Your task to perform on an android device: Go to Google Image 0: 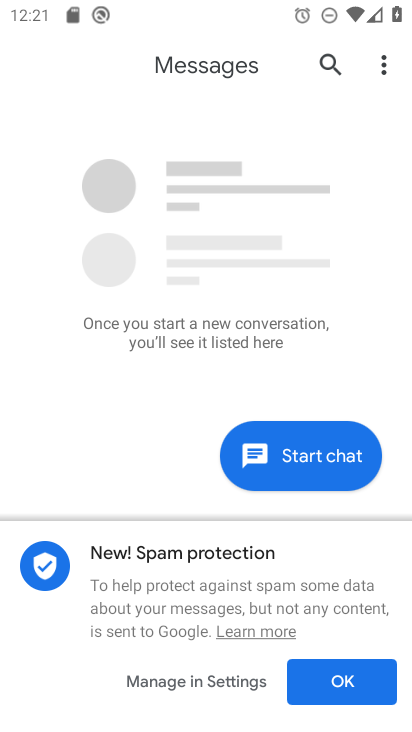
Step 0: press home button
Your task to perform on an android device: Go to Google Image 1: 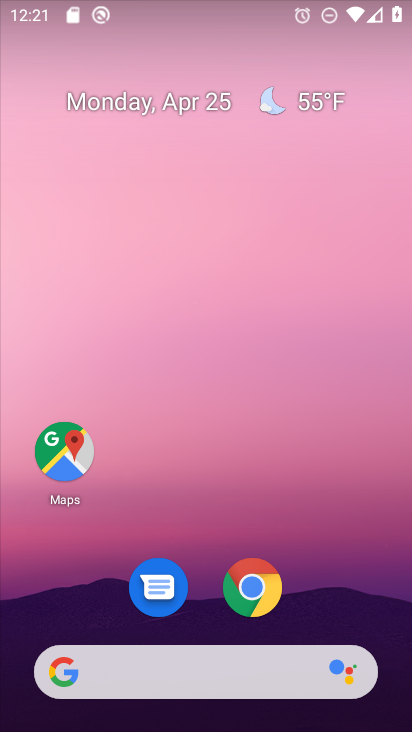
Step 1: drag from (180, 473) to (187, 2)
Your task to perform on an android device: Go to Google Image 2: 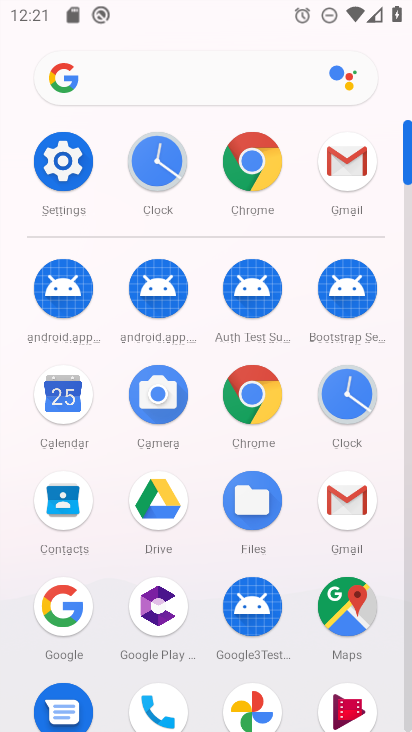
Step 2: click (78, 603)
Your task to perform on an android device: Go to Google Image 3: 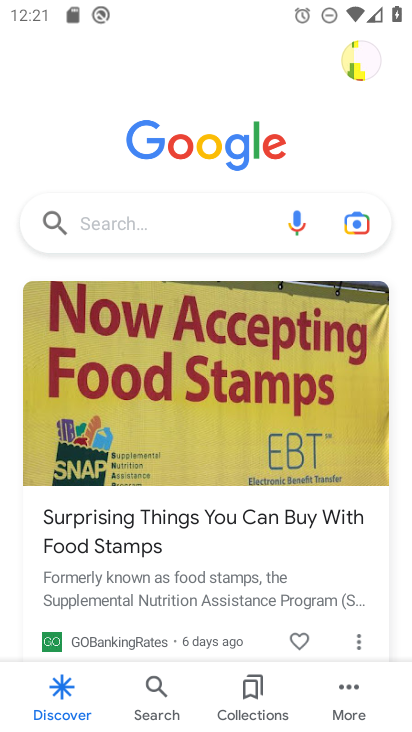
Step 3: task complete